Your task to perform on an android device: turn on the 12-hour format for clock Image 0: 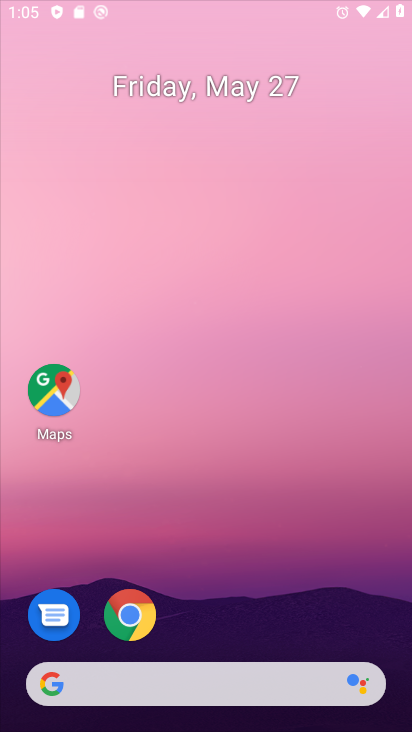
Step 0: press home button
Your task to perform on an android device: turn on the 12-hour format for clock Image 1: 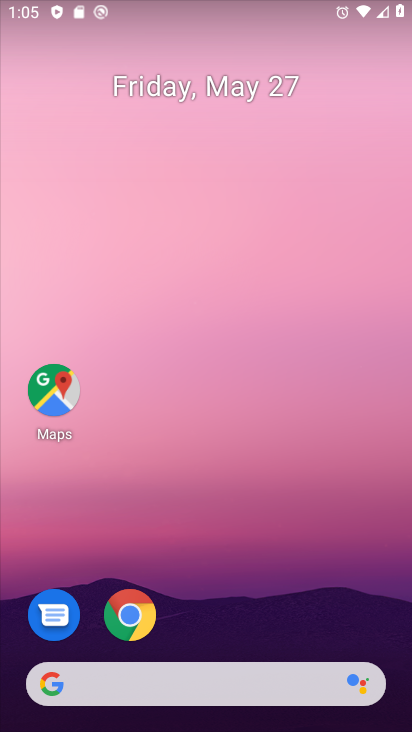
Step 1: drag from (281, 624) to (277, 119)
Your task to perform on an android device: turn on the 12-hour format for clock Image 2: 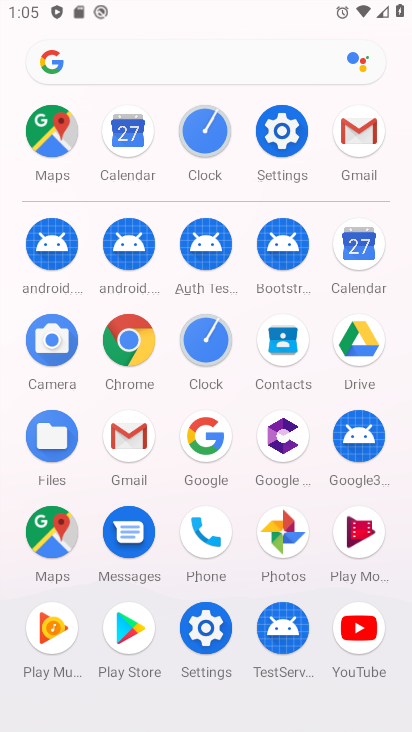
Step 2: click (281, 130)
Your task to perform on an android device: turn on the 12-hour format for clock Image 3: 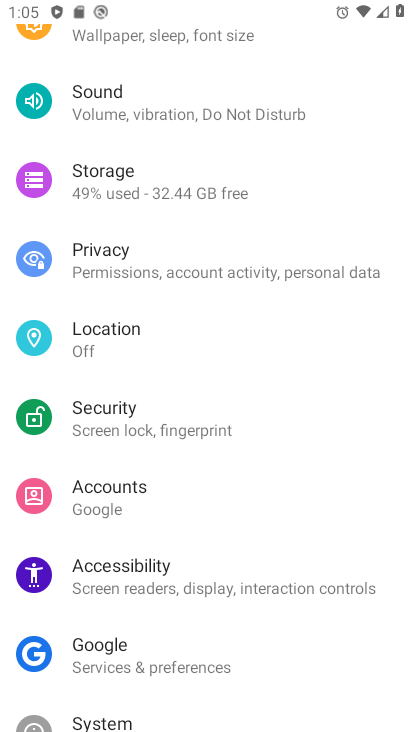
Step 3: drag from (283, 432) to (268, 133)
Your task to perform on an android device: turn on the 12-hour format for clock Image 4: 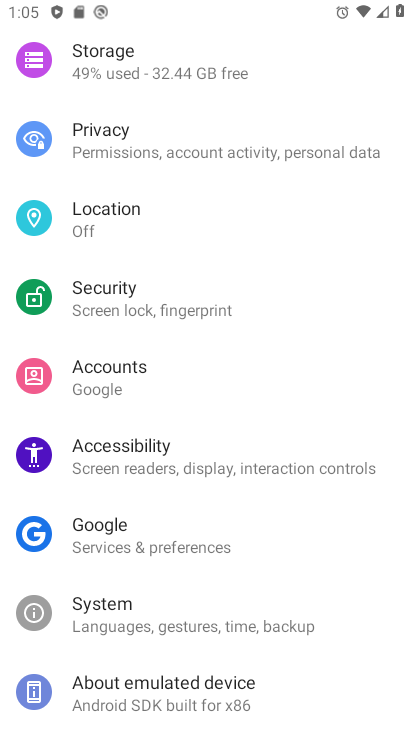
Step 4: click (149, 625)
Your task to perform on an android device: turn on the 12-hour format for clock Image 5: 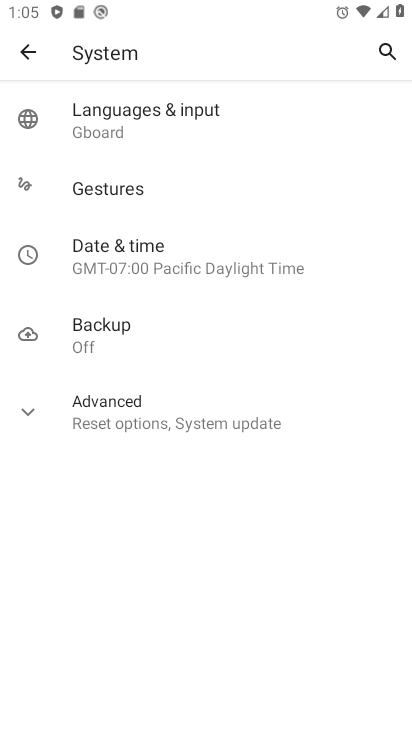
Step 5: click (112, 251)
Your task to perform on an android device: turn on the 12-hour format for clock Image 6: 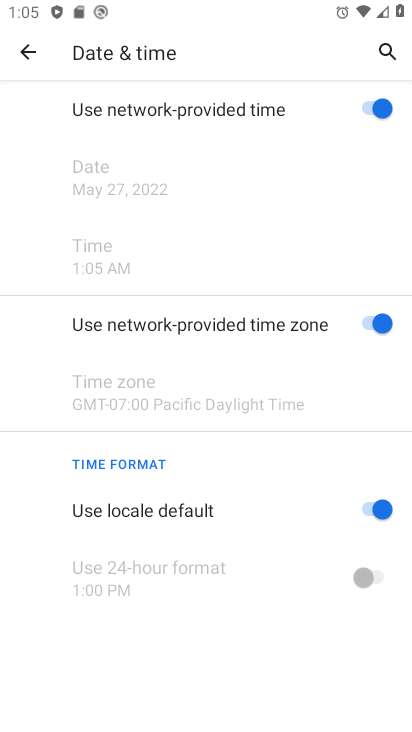
Step 6: click (364, 581)
Your task to perform on an android device: turn on the 12-hour format for clock Image 7: 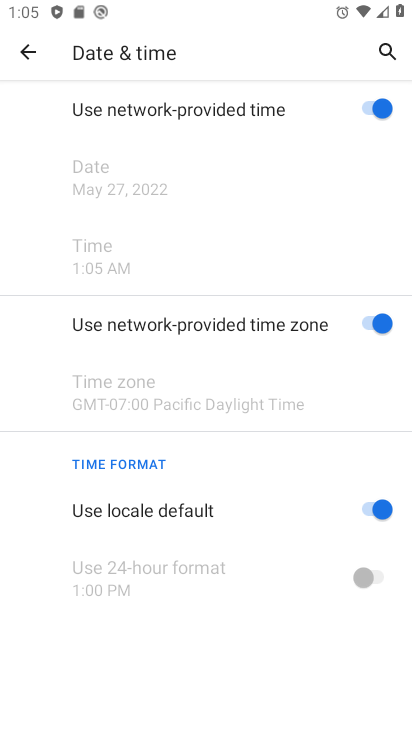
Step 7: click (383, 514)
Your task to perform on an android device: turn on the 12-hour format for clock Image 8: 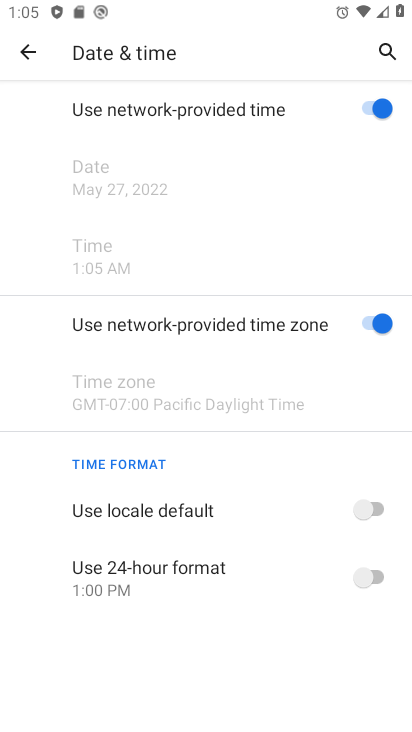
Step 8: task complete